Your task to perform on an android device: move a message to another label in the gmail app Image 0: 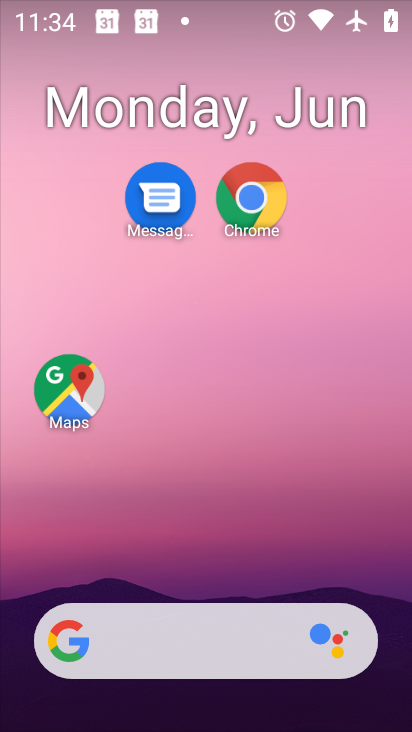
Step 0: drag from (231, 556) to (187, 116)
Your task to perform on an android device: move a message to another label in the gmail app Image 1: 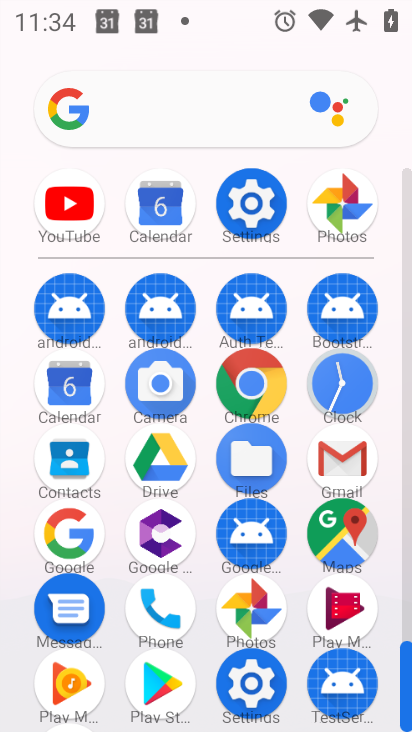
Step 1: click (359, 479)
Your task to perform on an android device: move a message to another label in the gmail app Image 2: 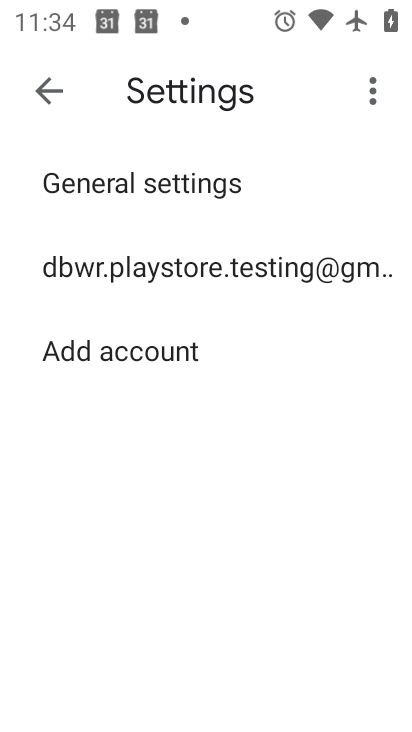
Step 2: click (38, 83)
Your task to perform on an android device: move a message to another label in the gmail app Image 3: 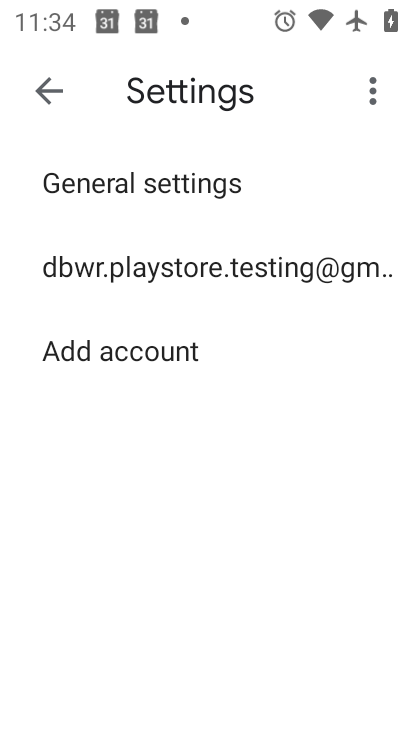
Step 3: click (38, 83)
Your task to perform on an android device: move a message to another label in the gmail app Image 4: 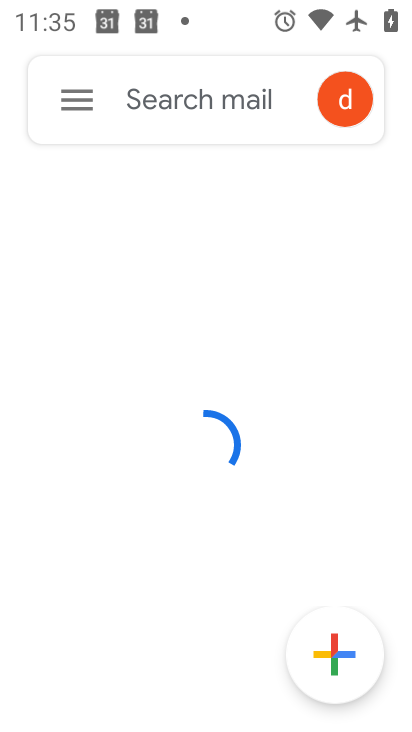
Step 4: click (77, 112)
Your task to perform on an android device: move a message to another label in the gmail app Image 5: 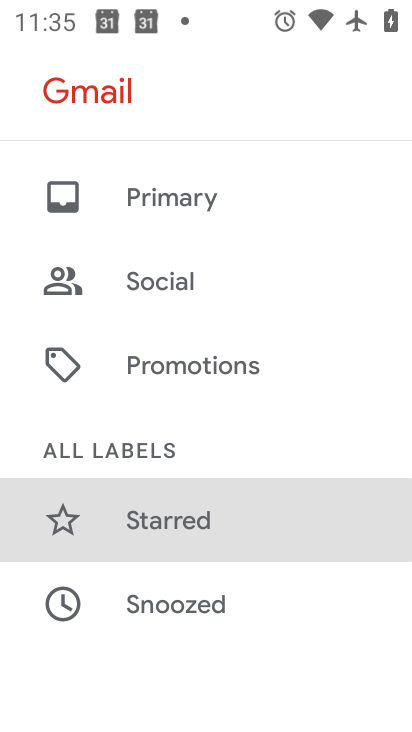
Step 5: drag from (248, 588) to (258, 277)
Your task to perform on an android device: move a message to another label in the gmail app Image 6: 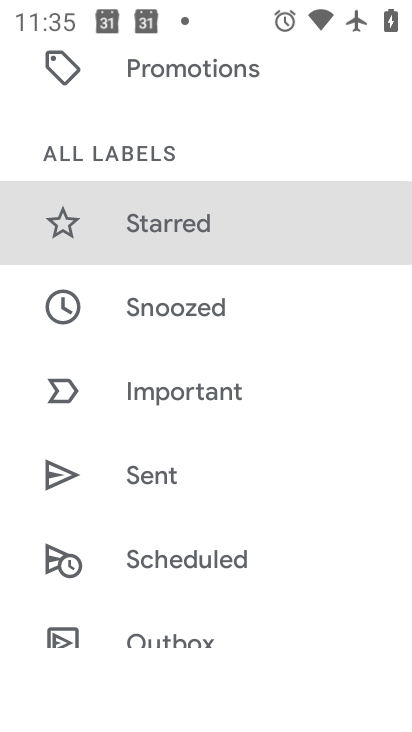
Step 6: drag from (256, 610) to (257, 338)
Your task to perform on an android device: move a message to another label in the gmail app Image 7: 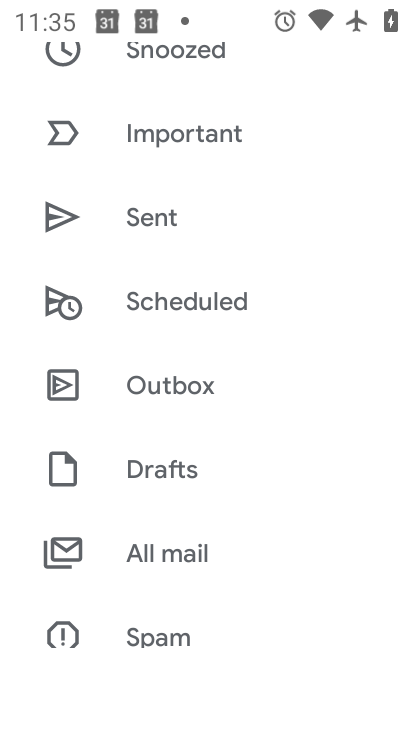
Step 7: click (207, 578)
Your task to perform on an android device: move a message to another label in the gmail app Image 8: 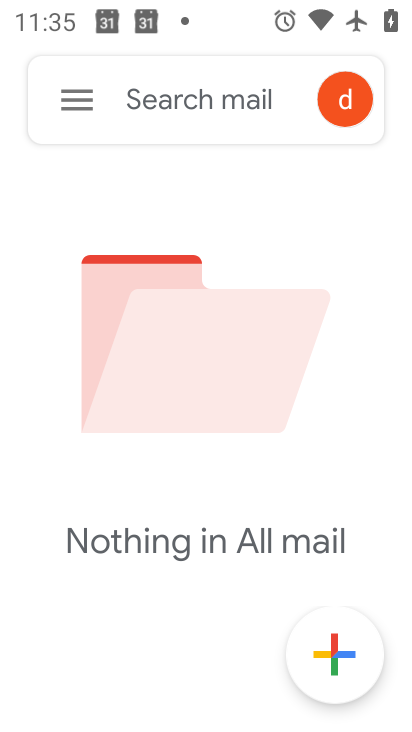
Step 8: task complete